Your task to perform on an android device: clear all cookies in the chrome app Image 0: 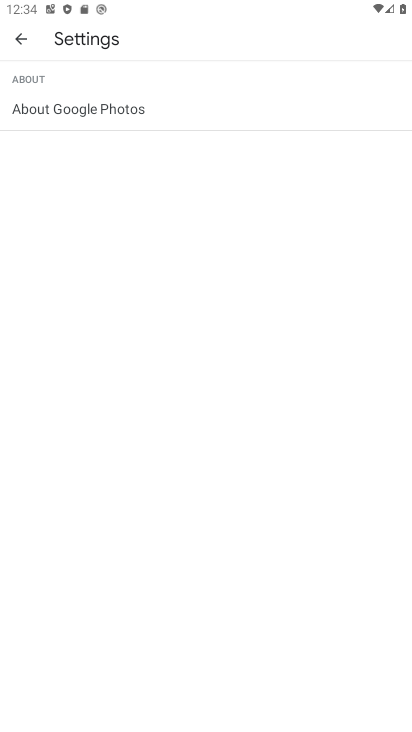
Step 0: press home button
Your task to perform on an android device: clear all cookies in the chrome app Image 1: 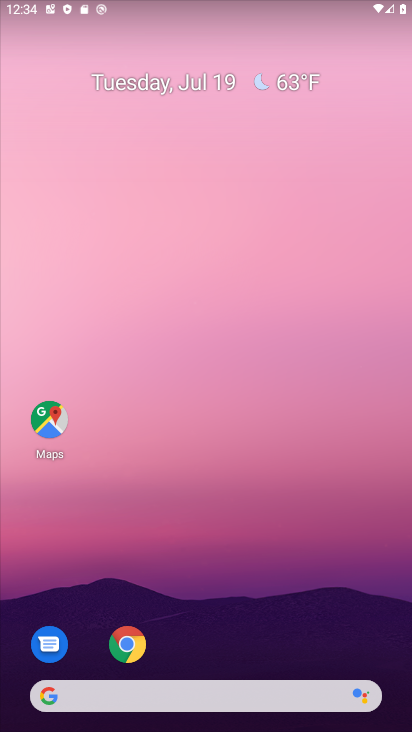
Step 1: click (126, 642)
Your task to perform on an android device: clear all cookies in the chrome app Image 2: 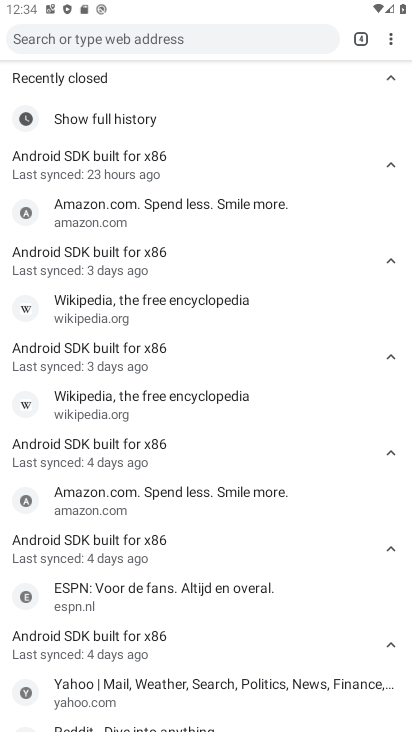
Step 2: click (392, 46)
Your task to perform on an android device: clear all cookies in the chrome app Image 3: 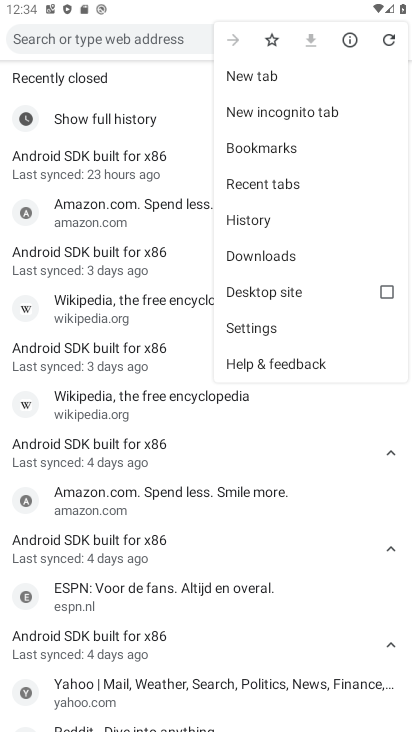
Step 3: click (257, 216)
Your task to perform on an android device: clear all cookies in the chrome app Image 4: 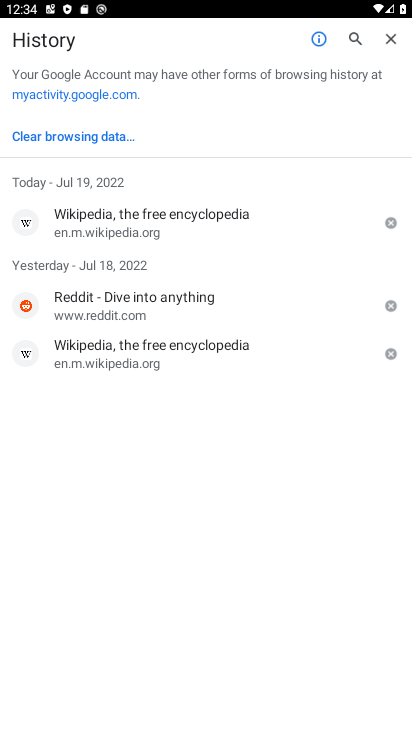
Step 4: click (105, 131)
Your task to perform on an android device: clear all cookies in the chrome app Image 5: 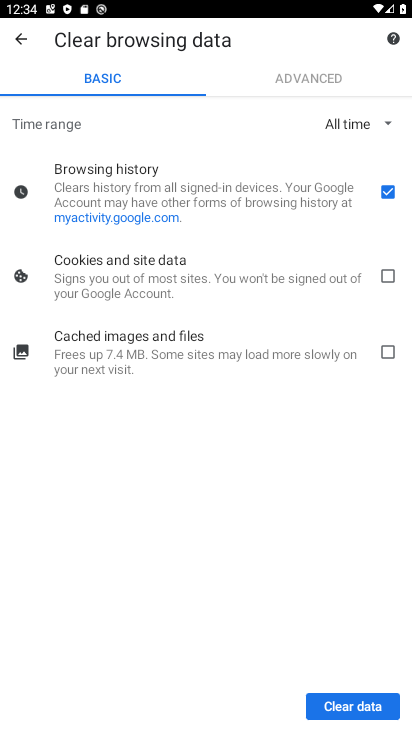
Step 5: click (389, 274)
Your task to perform on an android device: clear all cookies in the chrome app Image 6: 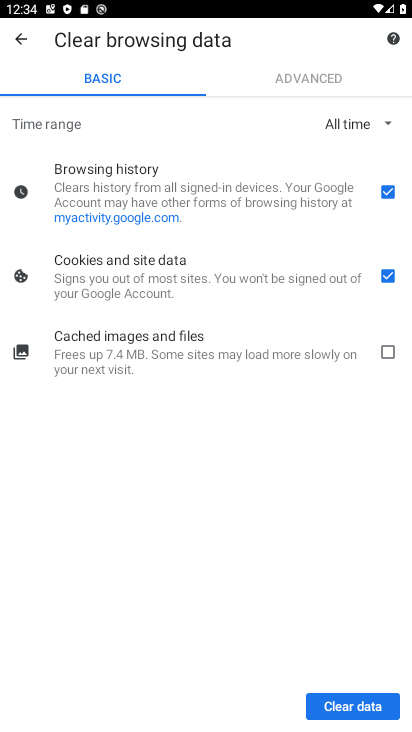
Step 6: click (388, 184)
Your task to perform on an android device: clear all cookies in the chrome app Image 7: 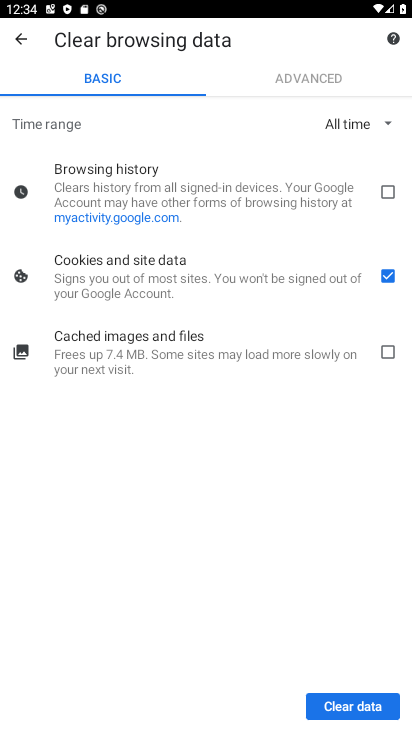
Step 7: click (362, 703)
Your task to perform on an android device: clear all cookies in the chrome app Image 8: 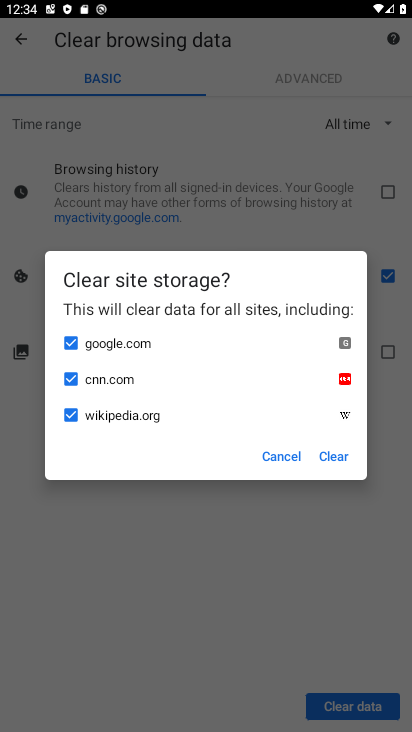
Step 8: click (330, 452)
Your task to perform on an android device: clear all cookies in the chrome app Image 9: 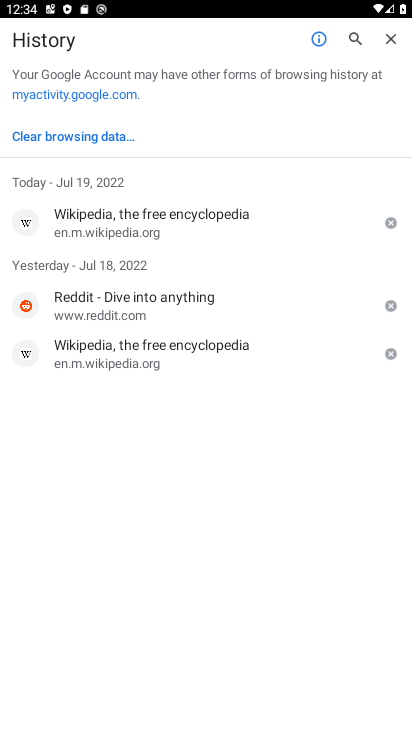
Step 9: task complete